Your task to perform on an android device: turn off wifi Image 0: 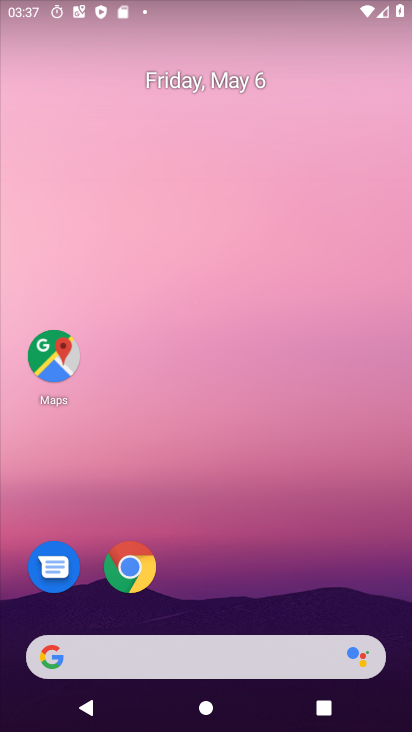
Step 0: drag from (153, 617) to (185, 221)
Your task to perform on an android device: turn off wifi Image 1: 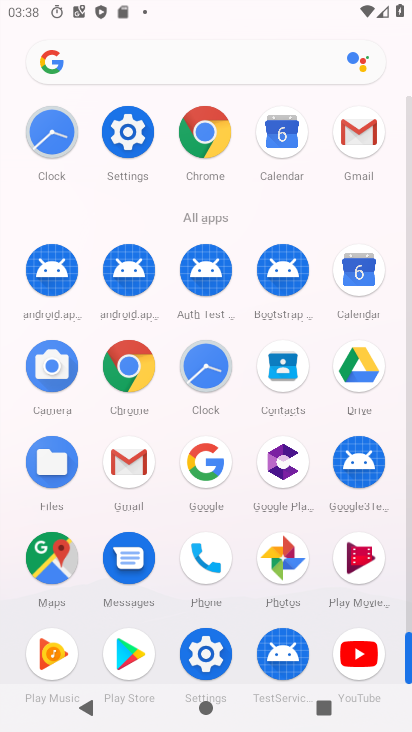
Step 1: click (212, 675)
Your task to perform on an android device: turn off wifi Image 2: 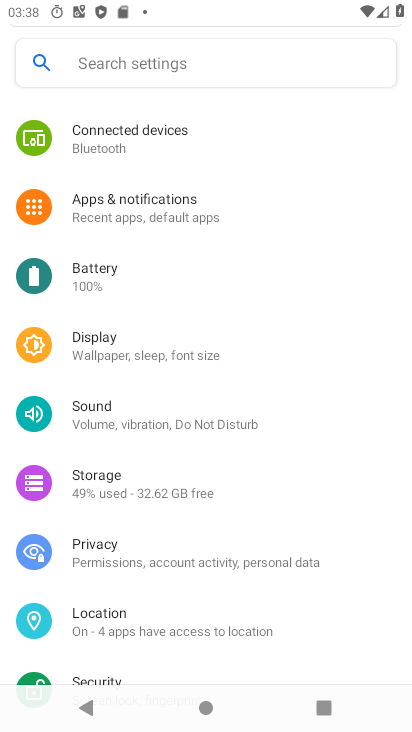
Step 2: drag from (124, 155) to (145, 581)
Your task to perform on an android device: turn off wifi Image 3: 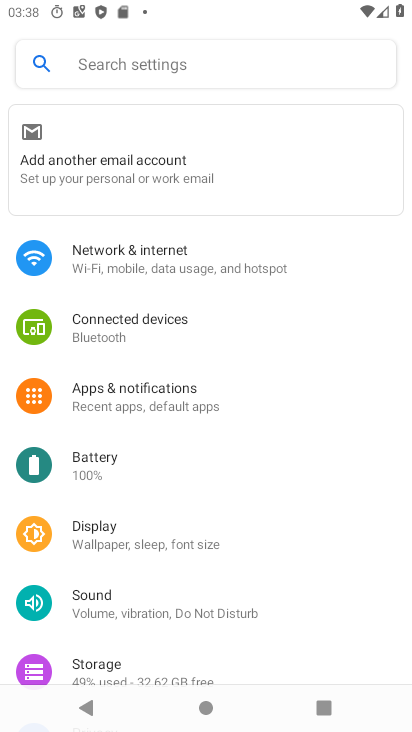
Step 3: click (133, 222)
Your task to perform on an android device: turn off wifi Image 4: 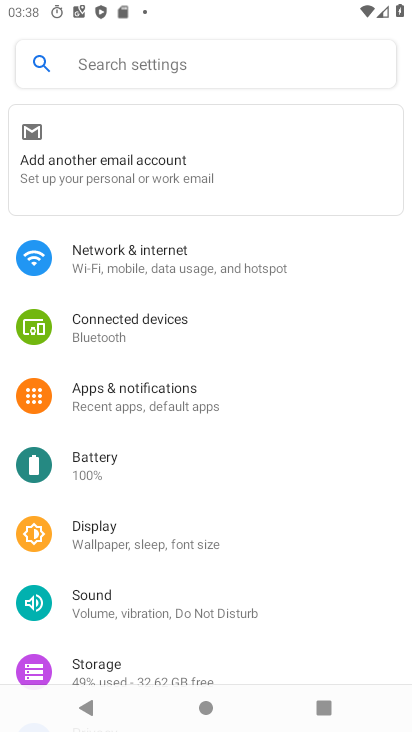
Step 4: click (156, 264)
Your task to perform on an android device: turn off wifi Image 5: 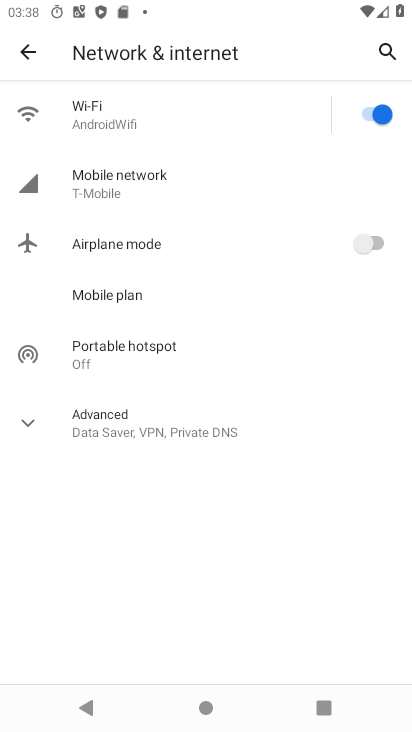
Step 5: click (365, 112)
Your task to perform on an android device: turn off wifi Image 6: 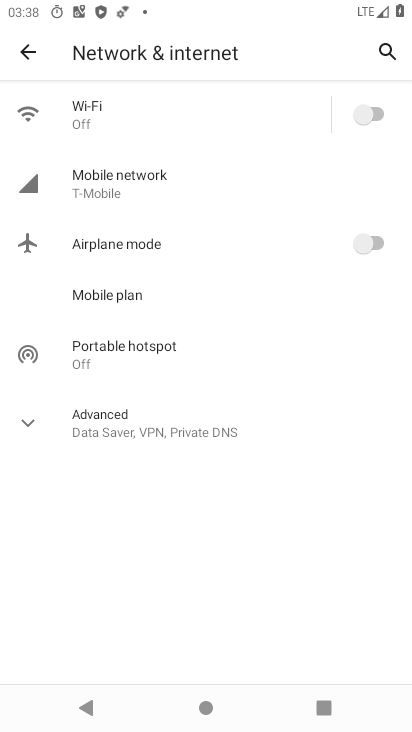
Step 6: task complete